Your task to perform on an android device: Open calendar and show me the first week of next month Image 0: 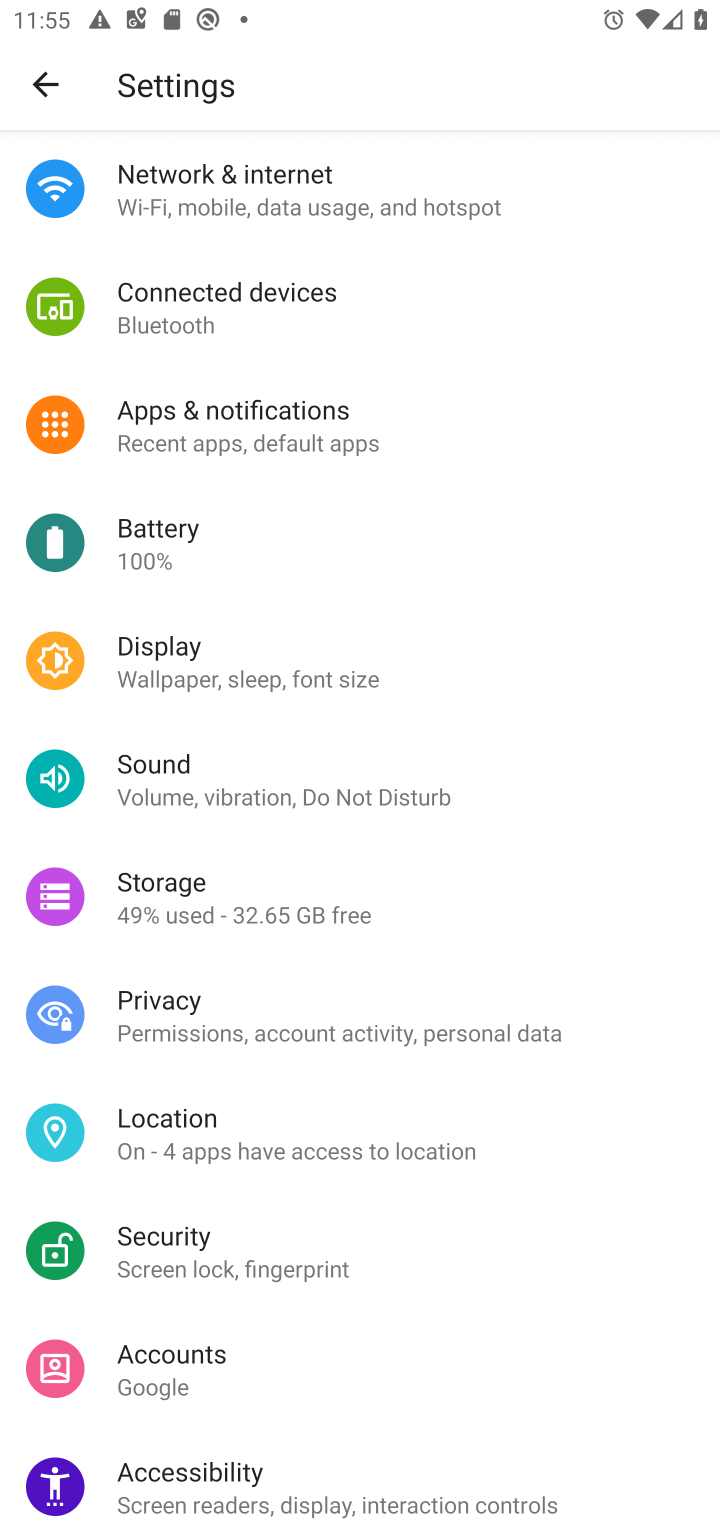
Step 0: press home button
Your task to perform on an android device: Open calendar and show me the first week of next month Image 1: 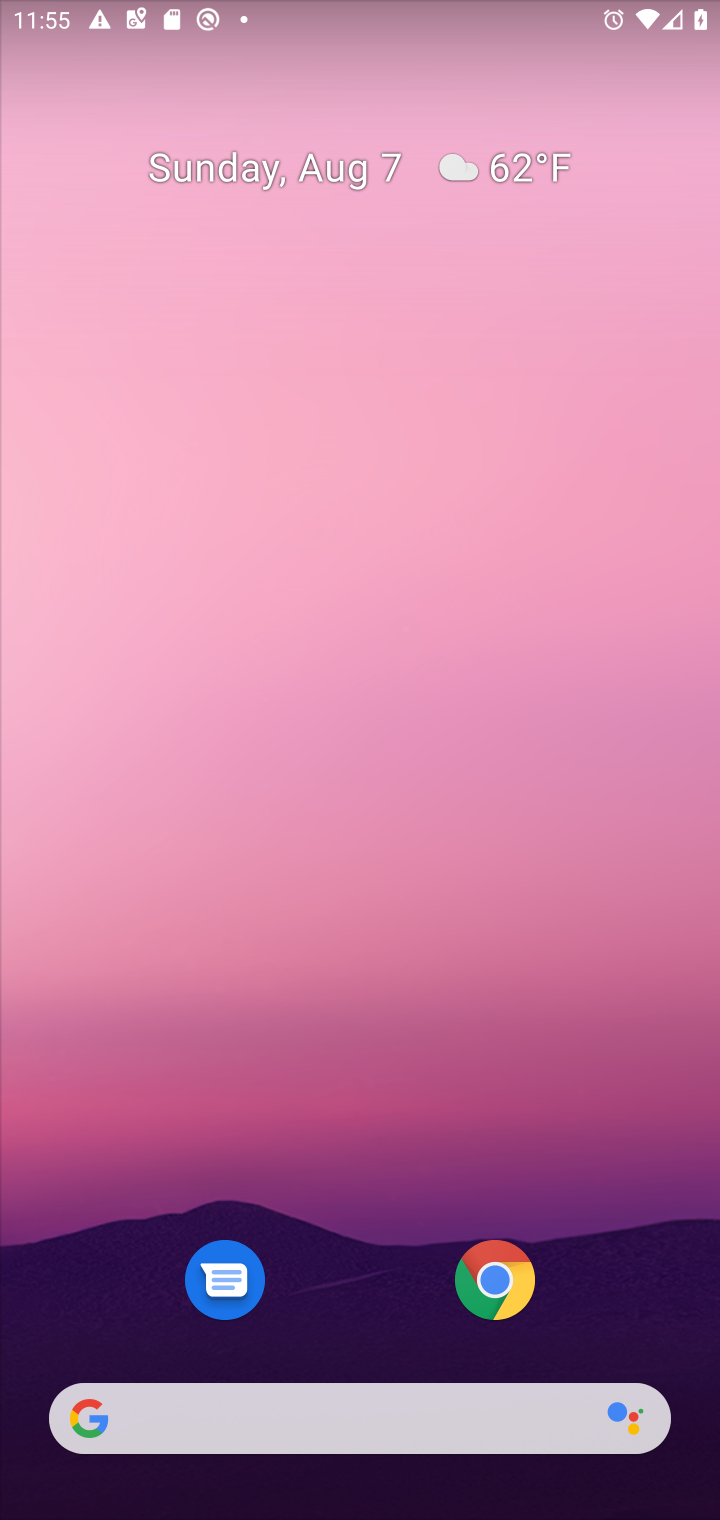
Step 1: drag from (385, 1128) to (385, 280)
Your task to perform on an android device: Open calendar and show me the first week of next month Image 2: 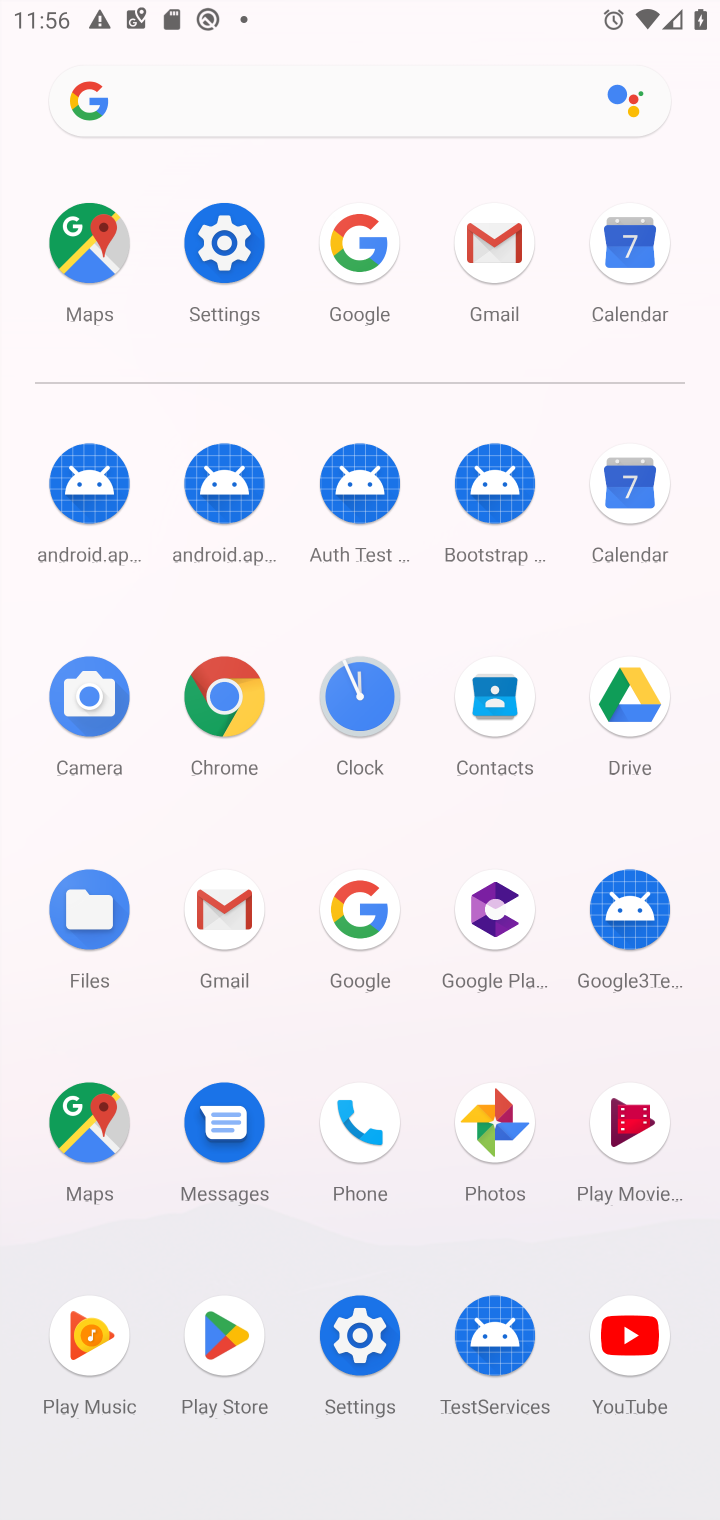
Step 2: click (630, 488)
Your task to perform on an android device: Open calendar and show me the first week of next month Image 3: 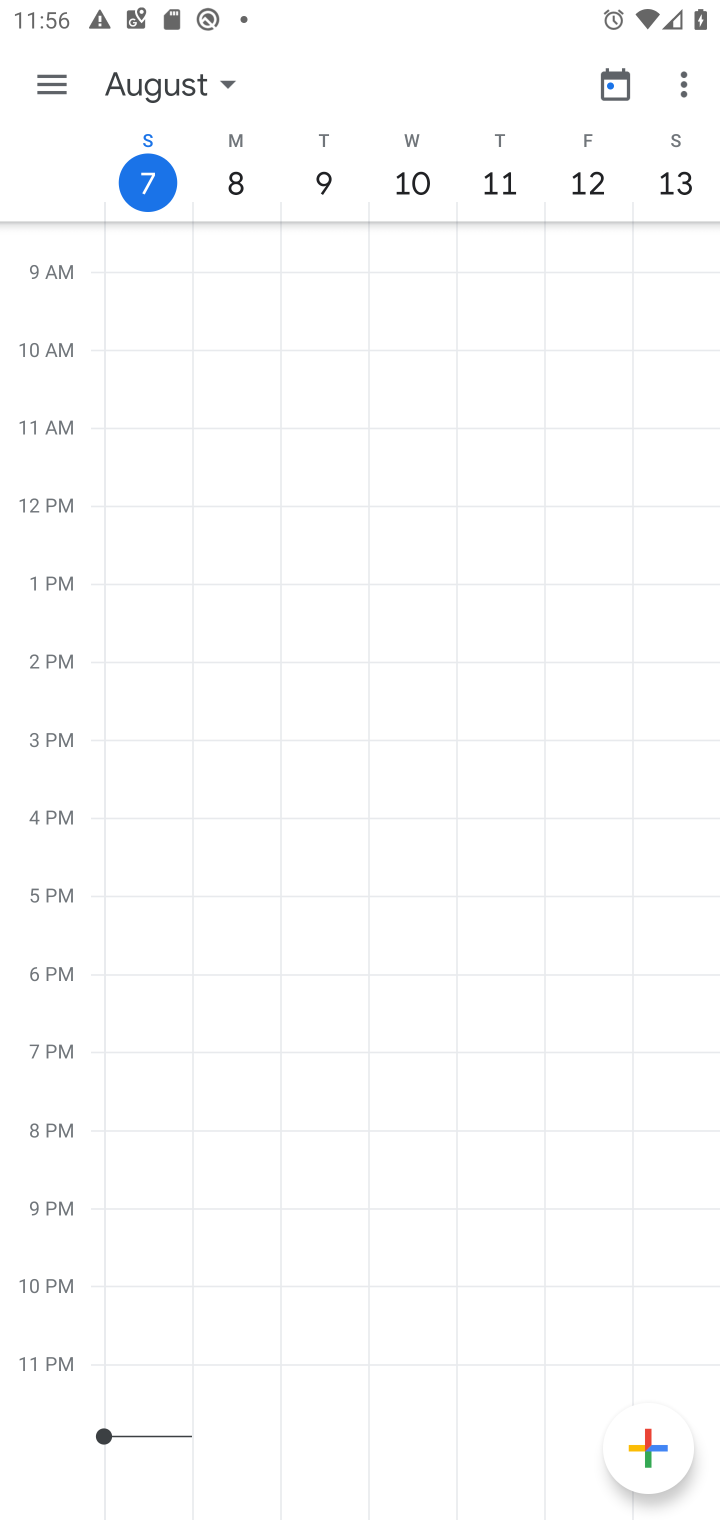
Step 3: click (216, 75)
Your task to perform on an android device: Open calendar and show me the first week of next month Image 4: 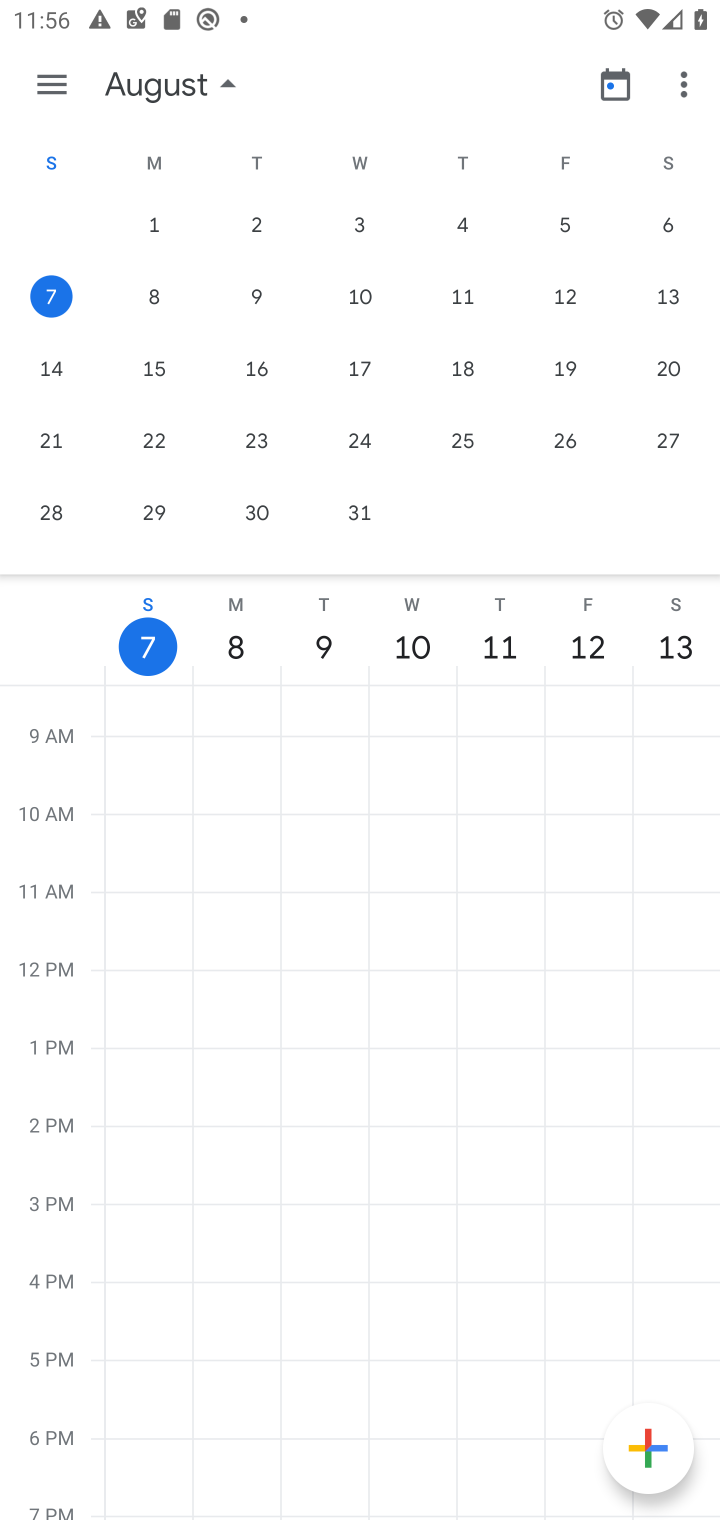
Step 4: drag from (661, 370) to (0, 425)
Your task to perform on an android device: Open calendar and show me the first week of next month Image 5: 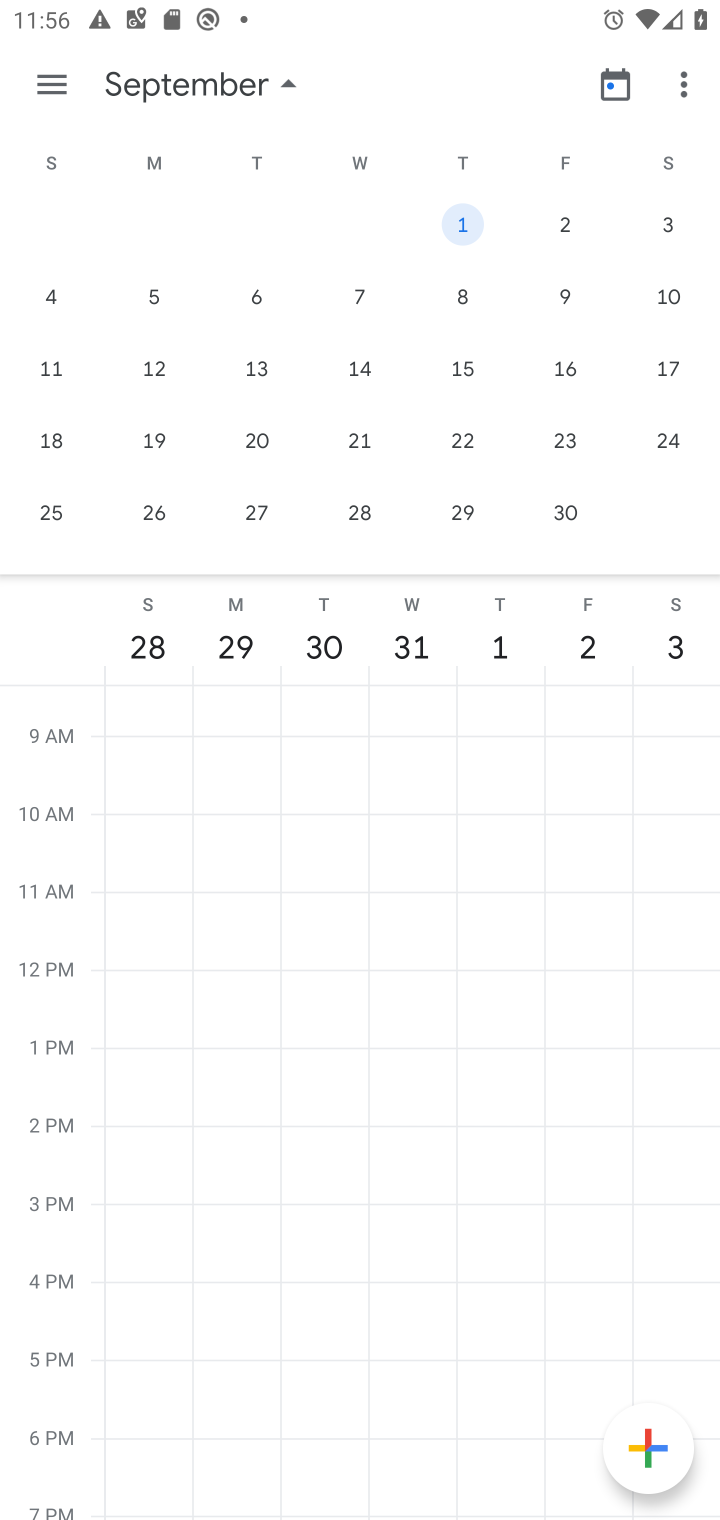
Step 5: click (151, 299)
Your task to perform on an android device: Open calendar and show me the first week of next month Image 6: 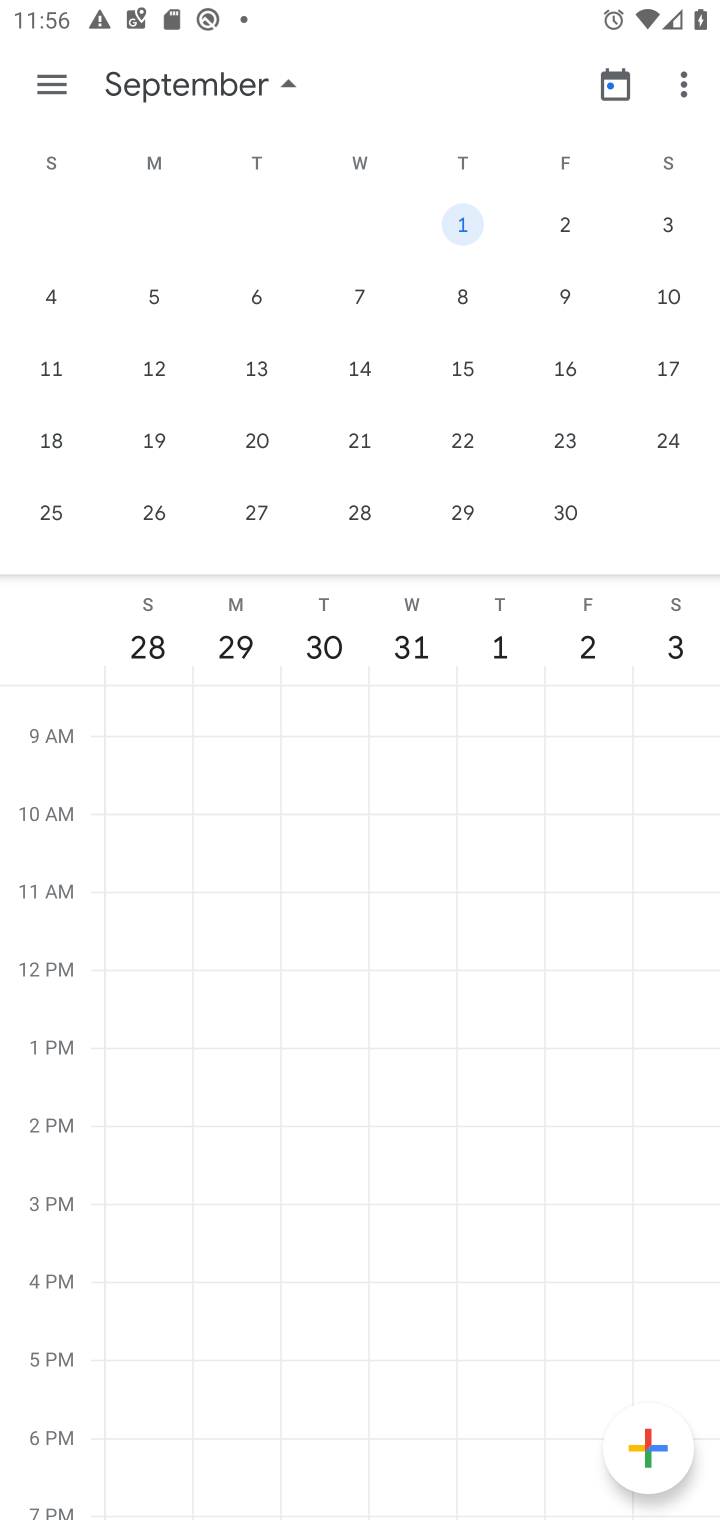
Step 6: click (157, 296)
Your task to perform on an android device: Open calendar and show me the first week of next month Image 7: 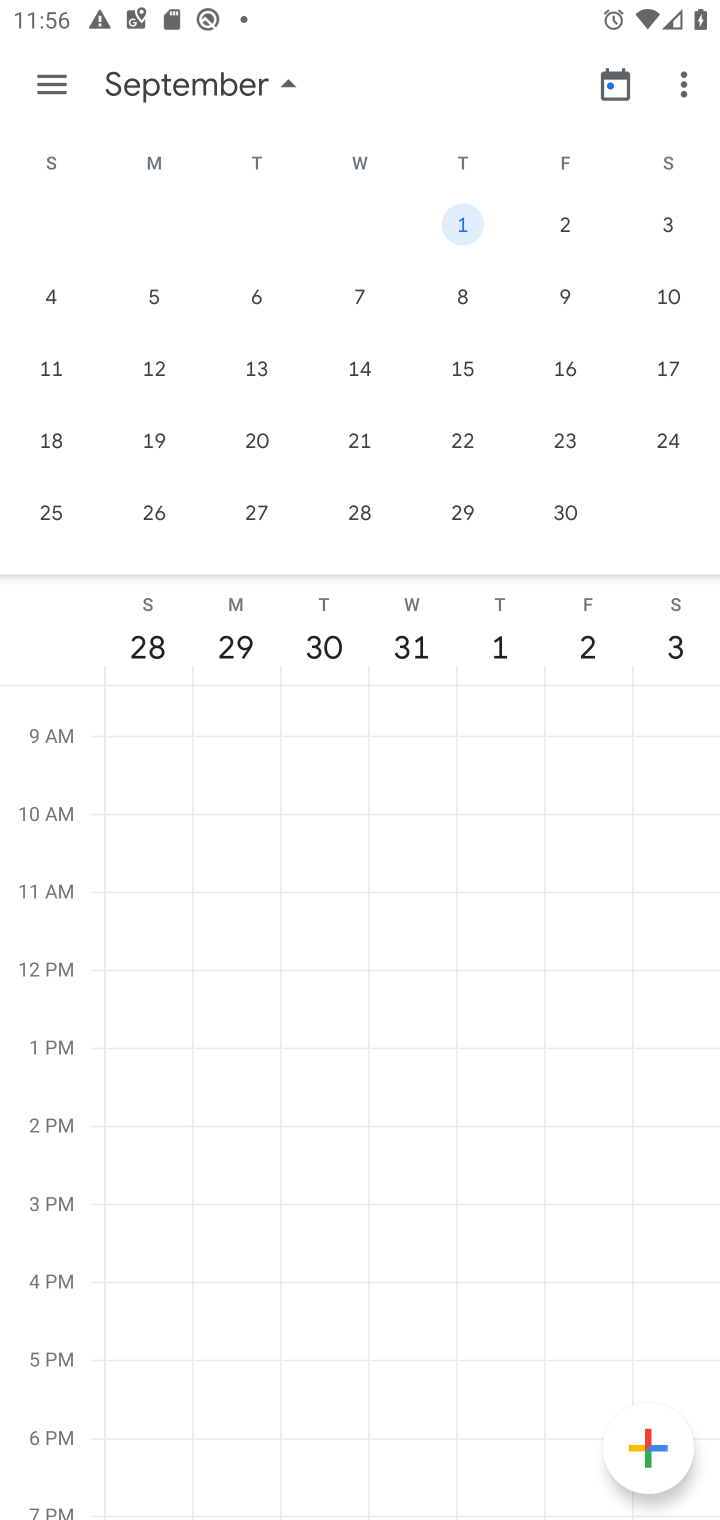
Step 7: click (155, 299)
Your task to perform on an android device: Open calendar and show me the first week of next month Image 8: 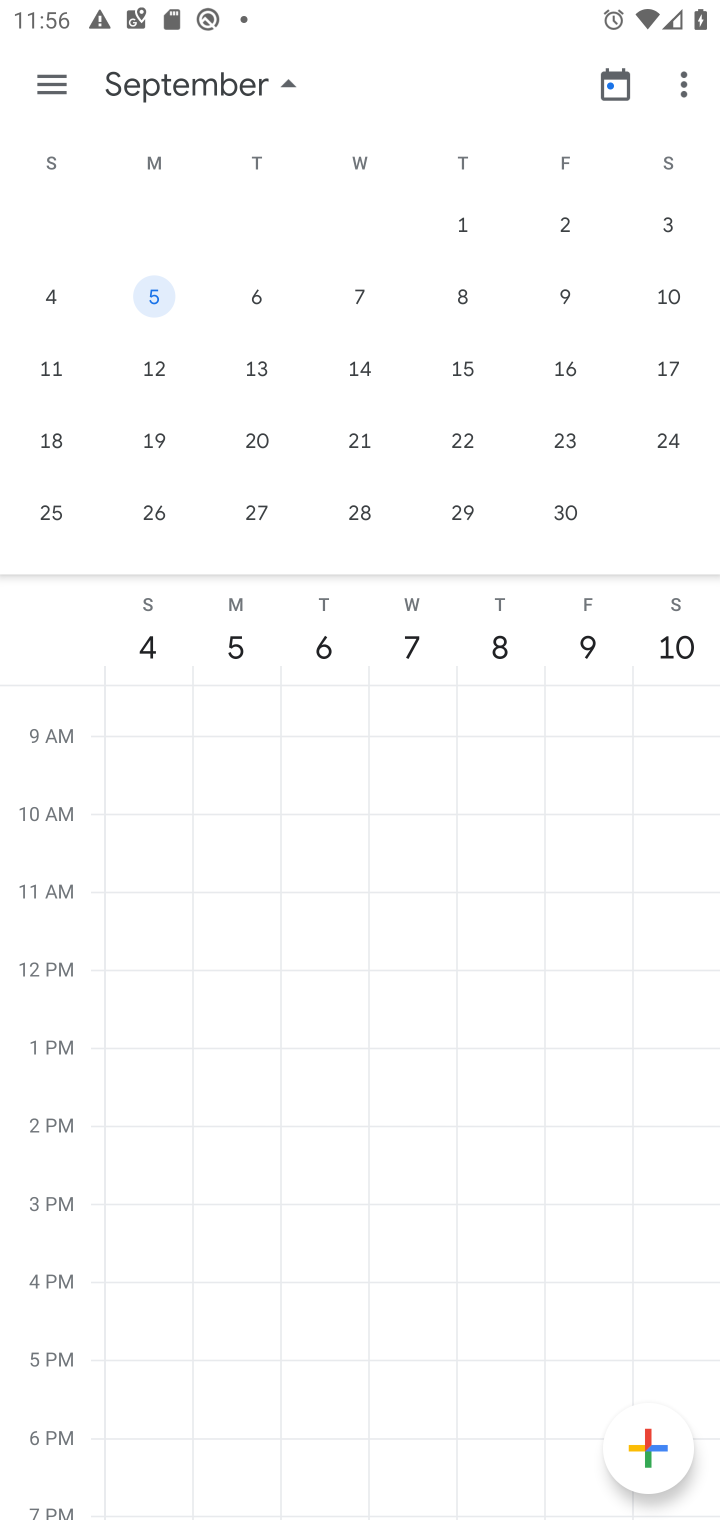
Step 8: click (155, 299)
Your task to perform on an android device: Open calendar and show me the first week of next month Image 9: 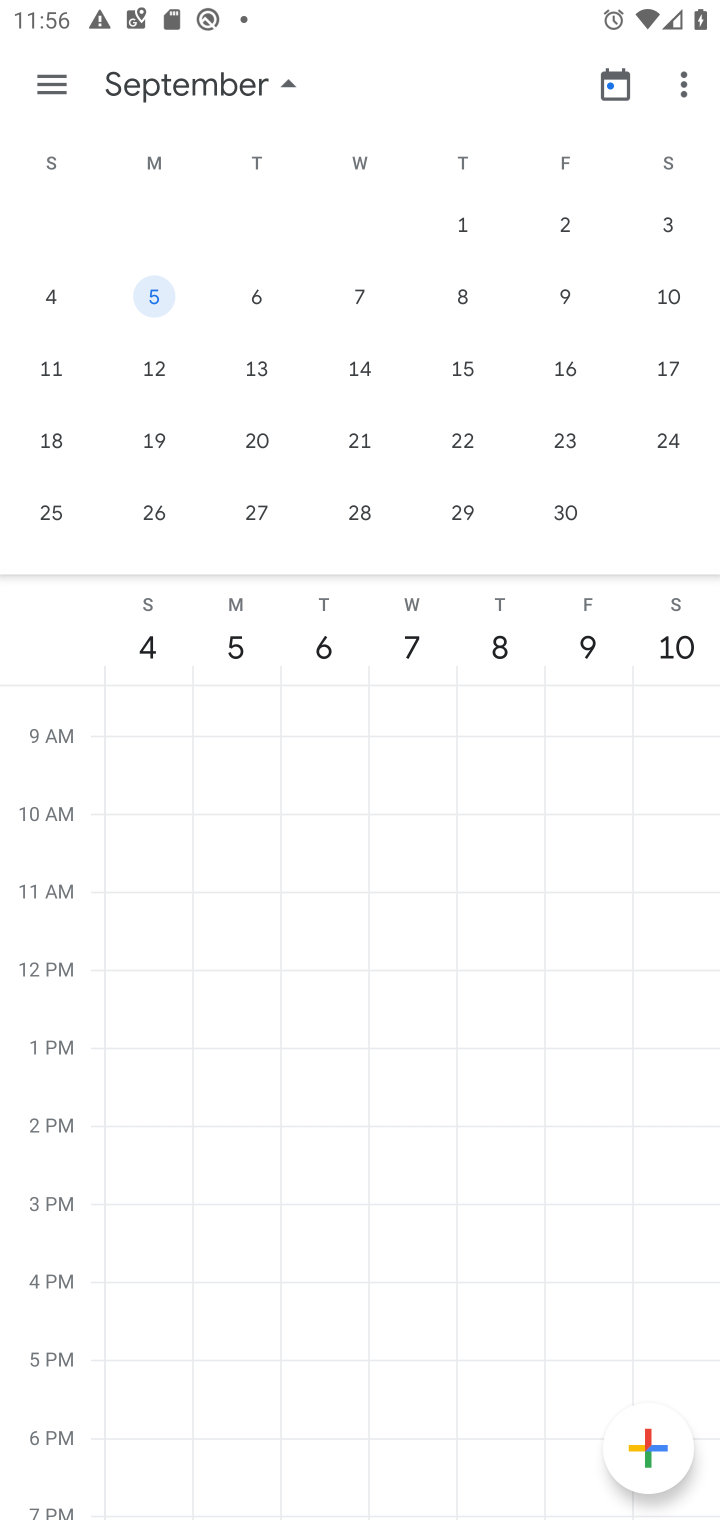
Step 9: click (155, 299)
Your task to perform on an android device: Open calendar and show me the first week of next month Image 10: 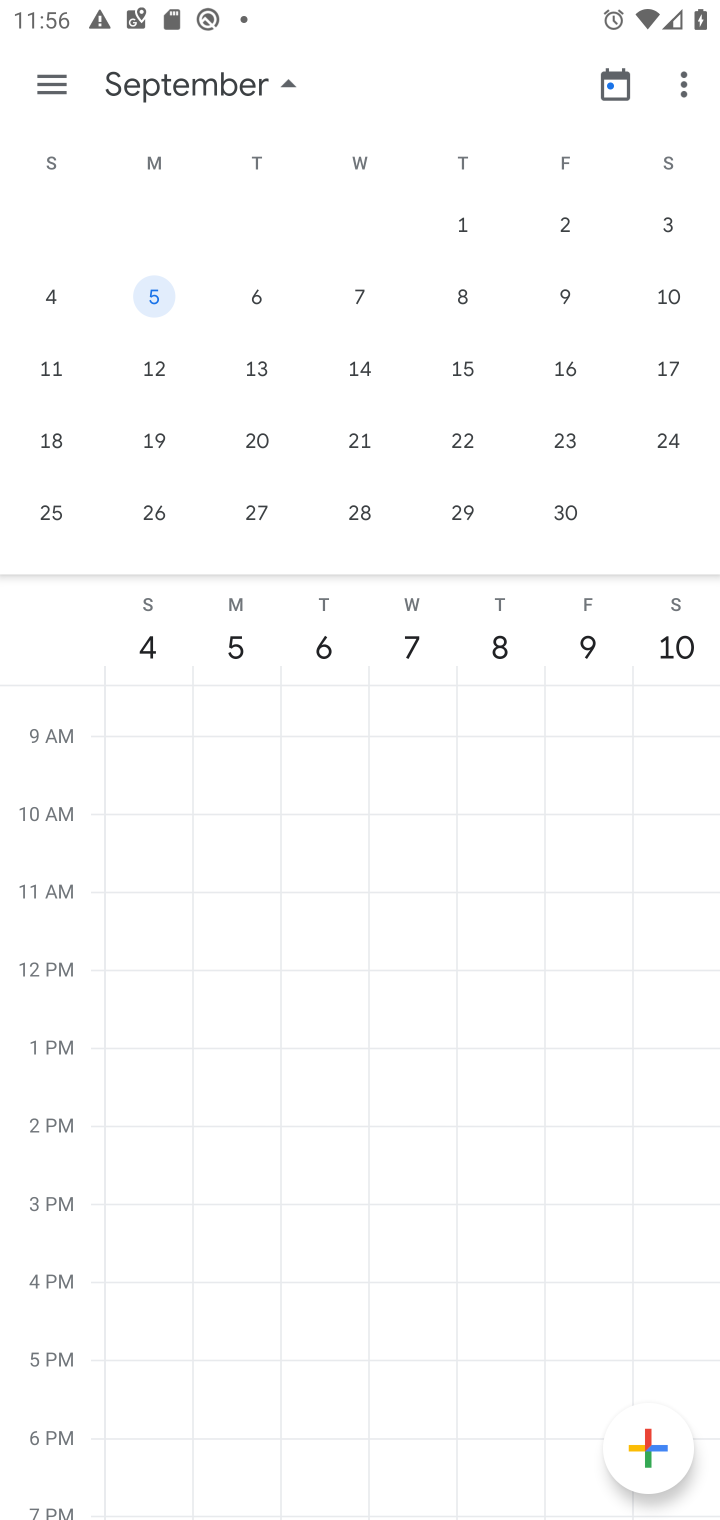
Step 10: task complete